Your task to perform on an android device: toggle sleep mode Image 0: 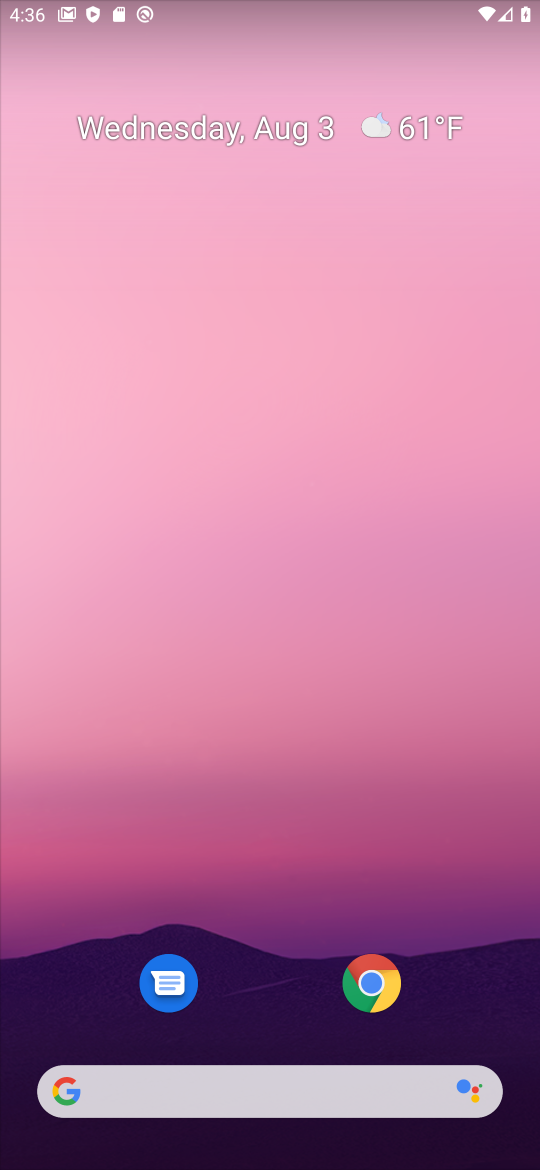
Step 0: press home button
Your task to perform on an android device: toggle sleep mode Image 1: 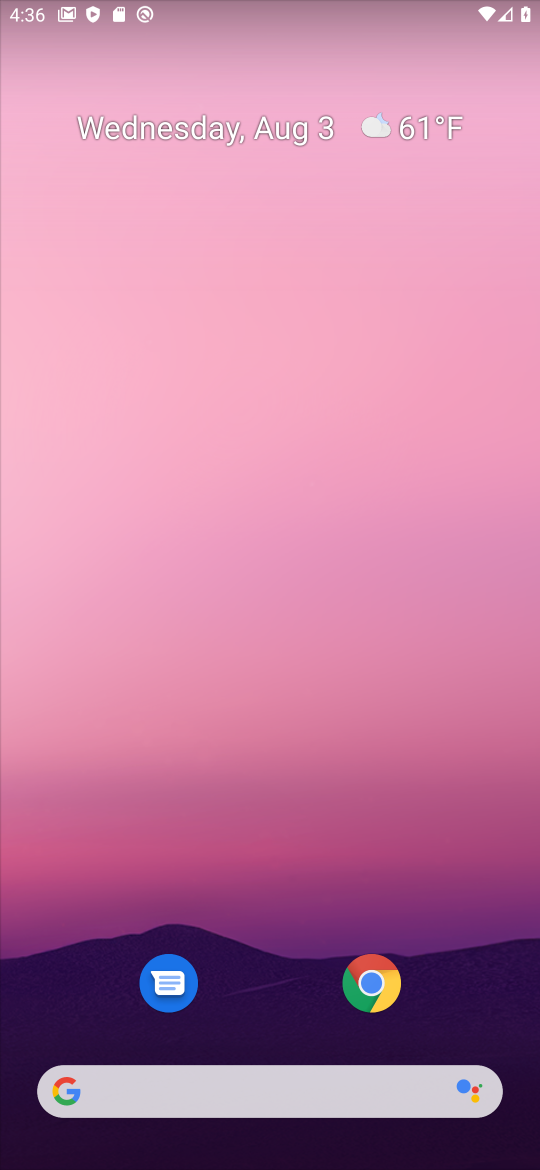
Step 1: drag from (278, 958) to (406, 163)
Your task to perform on an android device: toggle sleep mode Image 2: 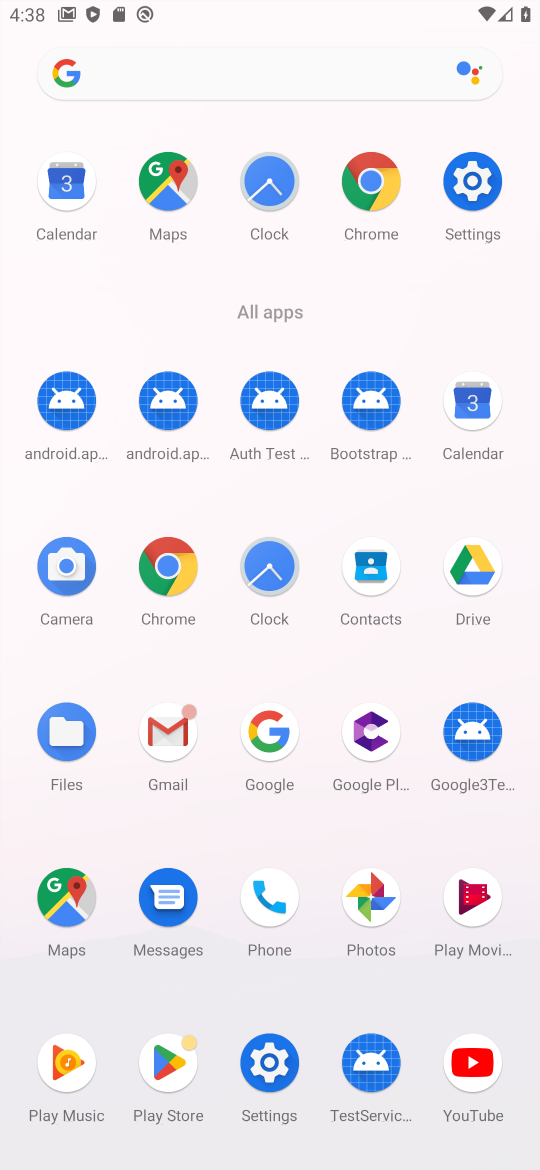
Step 2: press home button
Your task to perform on an android device: toggle sleep mode Image 3: 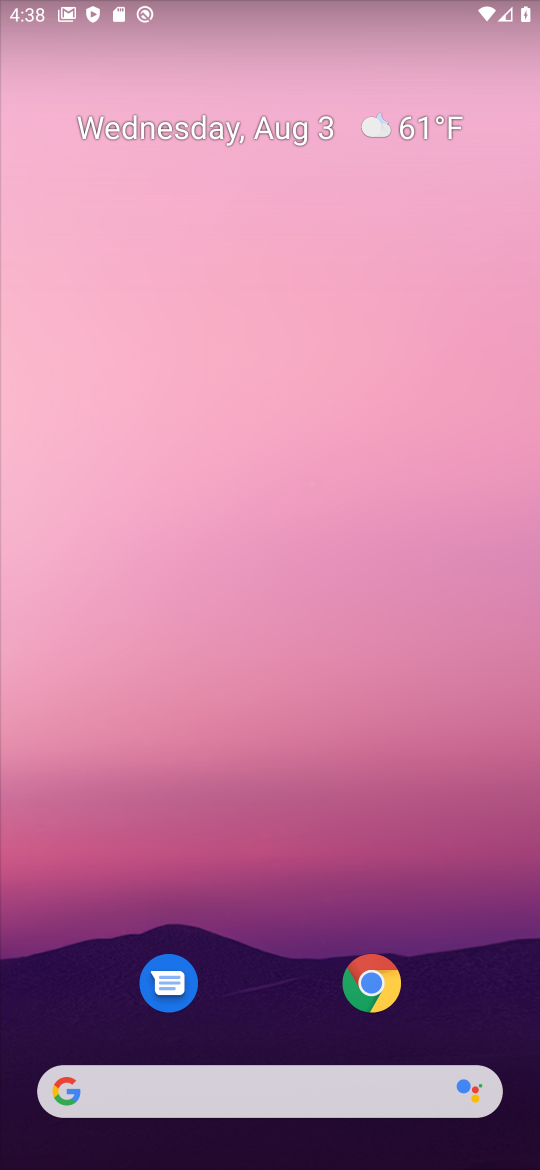
Step 3: drag from (285, 982) to (378, 66)
Your task to perform on an android device: toggle sleep mode Image 4: 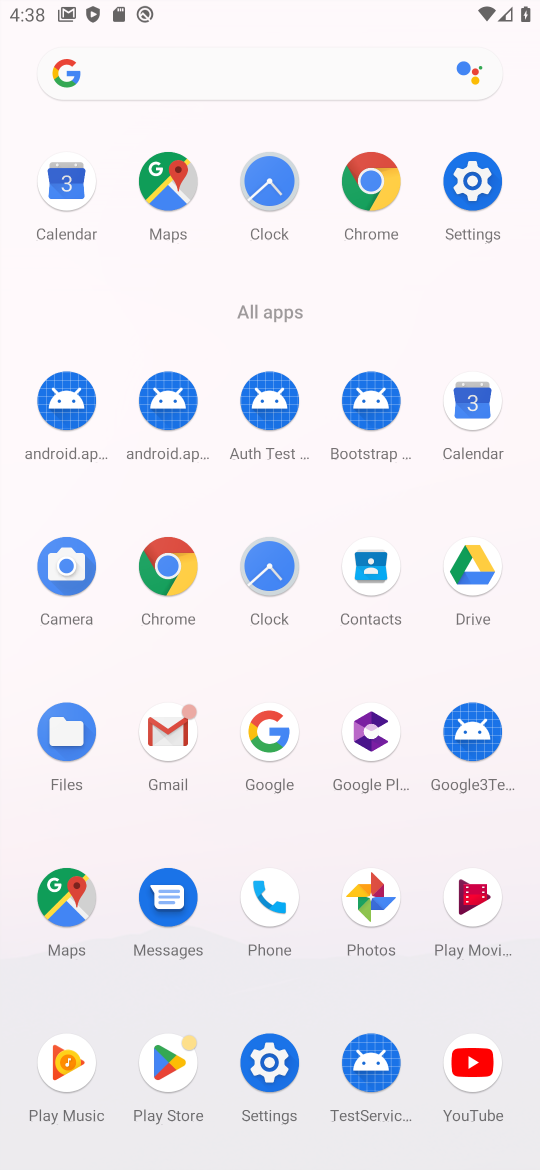
Step 4: click (462, 193)
Your task to perform on an android device: toggle sleep mode Image 5: 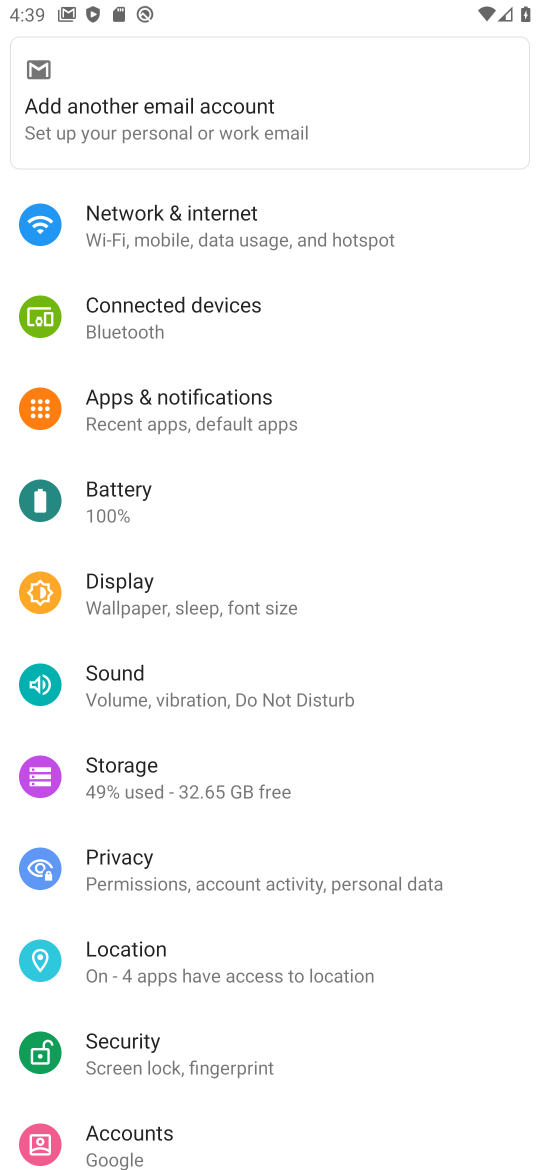
Step 5: click (119, 588)
Your task to perform on an android device: toggle sleep mode Image 6: 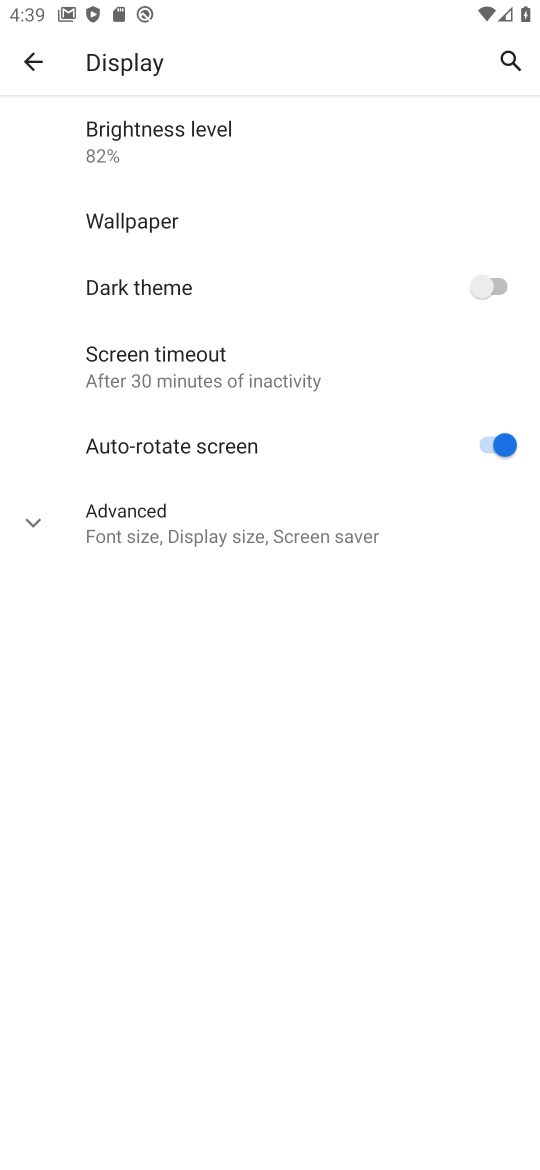
Step 6: task complete